Your task to perform on an android device: Open network settings Image 0: 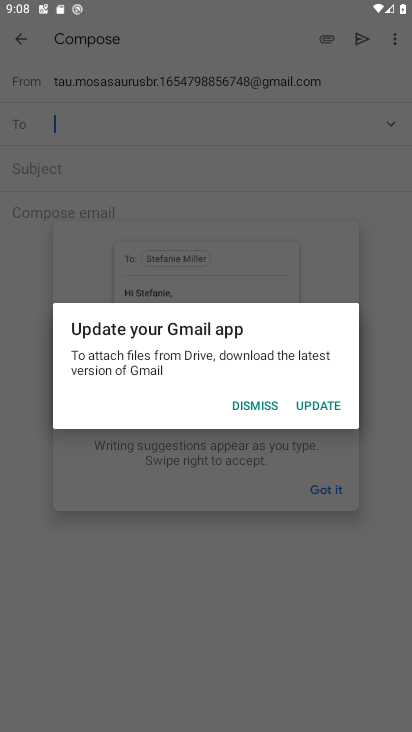
Step 0: press home button
Your task to perform on an android device: Open network settings Image 1: 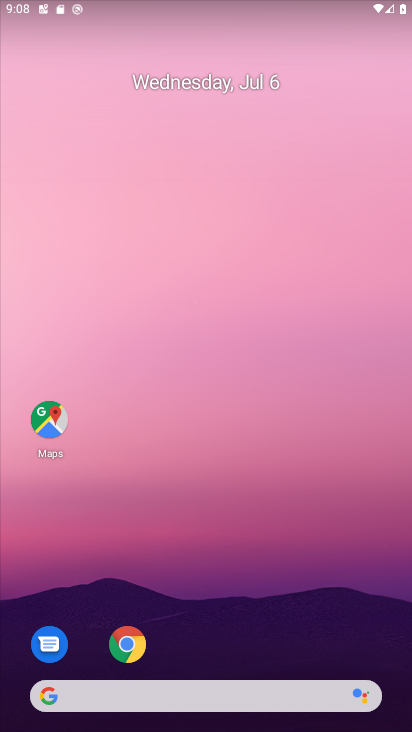
Step 1: drag from (312, 687) to (282, 175)
Your task to perform on an android device: Open network settings Image 2: 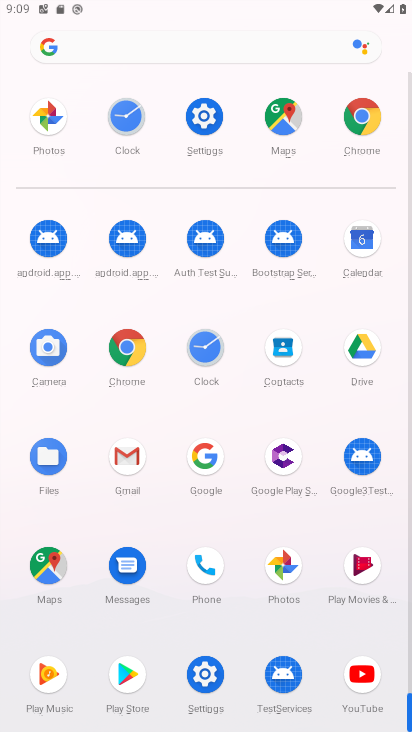
Step 2: click (215, 125)
Your task to perform on an android device: Open network settings Image 3: 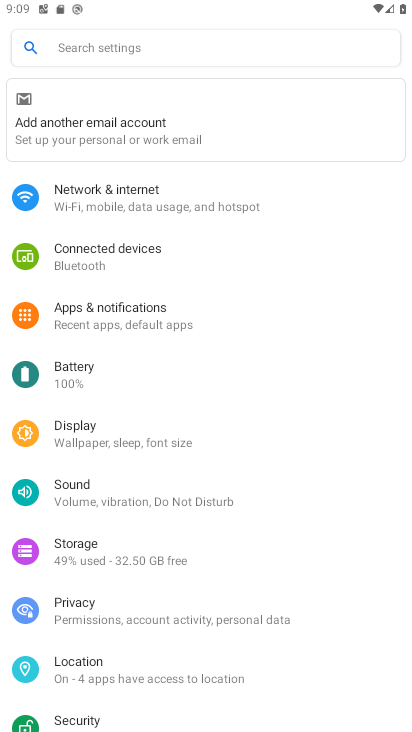
Step 3: drag from (204, 554) to (185, 348)
Your task to perform on an android device: Open network settings Image 4: 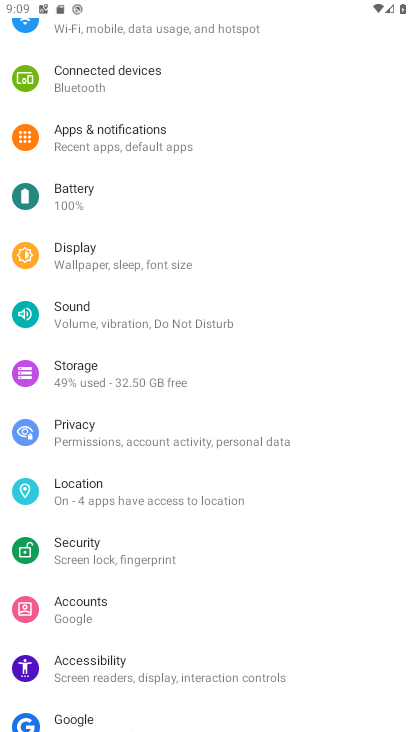
Step 4: drag from (169, 203) to (129, 397)
Your task to perform on an android device: Open network settings Image 5: 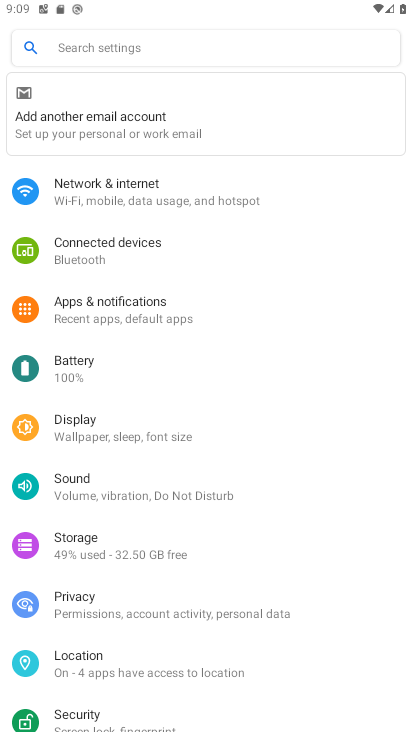
Step 5: drag from (205, 541) to (217, 488)
Your task to perform on an android device: Open network settings Image 6: 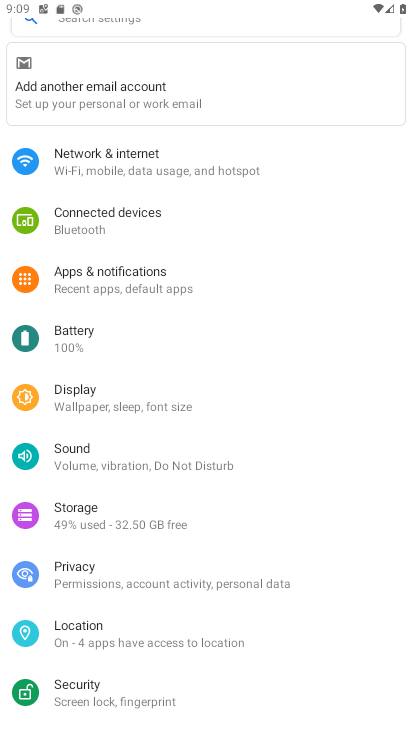
Step 6: drag from (195, 480) to (200, 383)
Your task to perform on an android device: Open network settings Image 7: 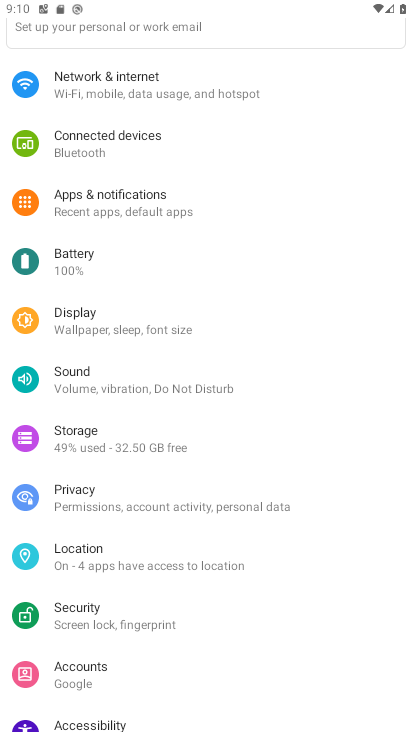
Step 7: click (130, 95)
Your task to perform on an android device: Open network settings Image 8: 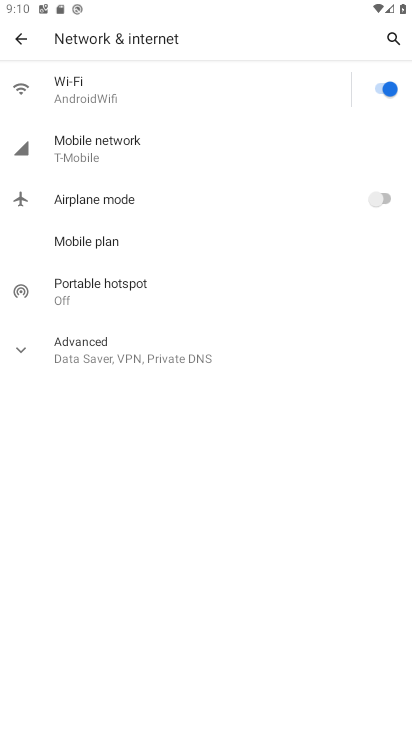
Step 8: click (175, 143)
Your task to perform on an android device: Open network settings Image 9: 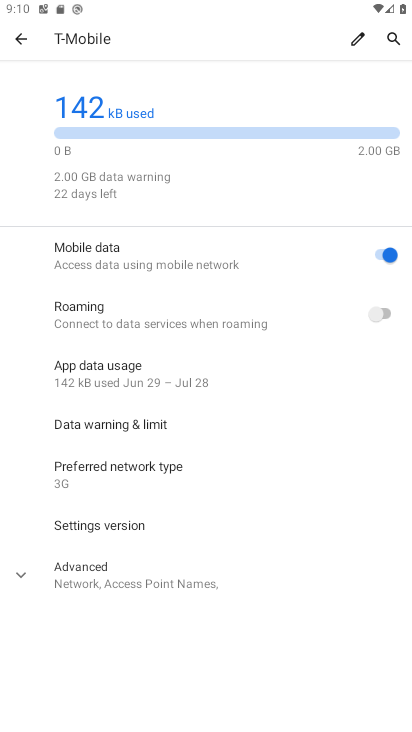
Step 9: task complete